Your task to perform on an android device: turn on notifications settings in the gmail app Image 0: 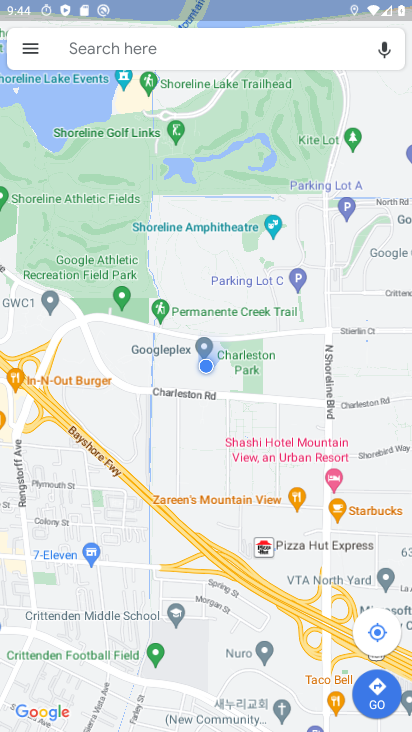
Step 0: click (30, 54)
Your task to perform on an android device: turn on notifications settings in the gmail app Image 1: 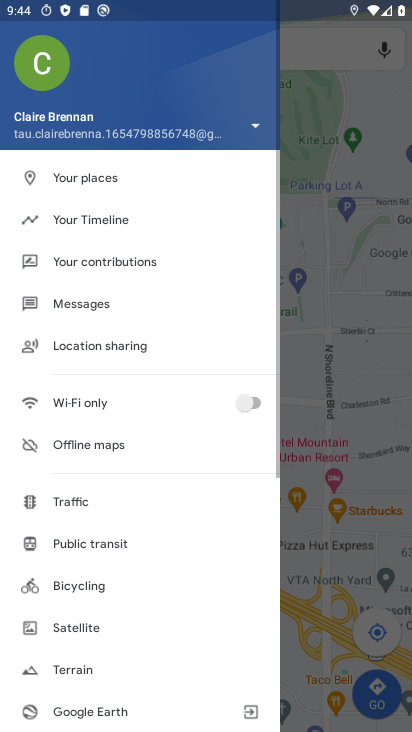
Step 1: drag from (61, 688) to (7, 137)
Your task to perform on an android device: turn on notifications settings in the gmail app Image 2: 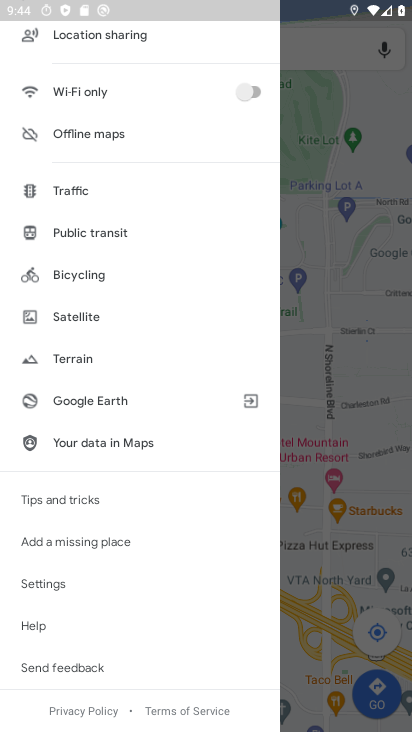
Step 2: click (45, 583)
Your task to perform on an android device: turn on notifications settings in the gmail app Image 3: 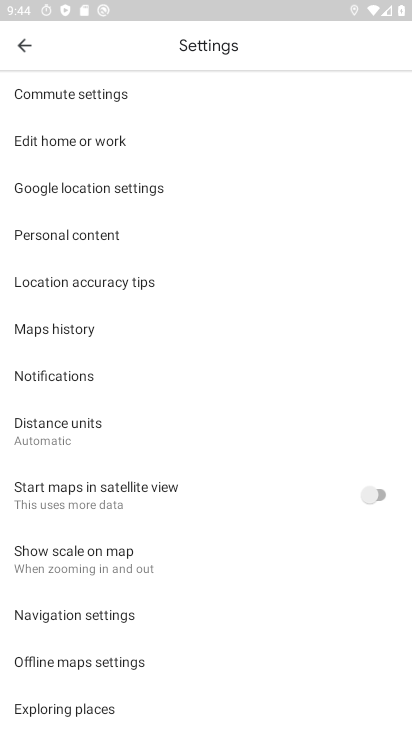
Step 3: click (75, 377)
Your task to perform on an android device: turn on notifications settings in the gmail app Image 4: 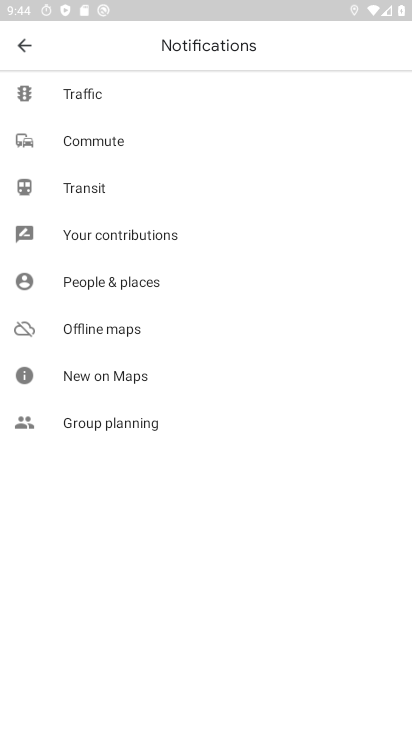
Step 4: task complete